Your task to perform on an android device: Install the Twitter app Image 0: 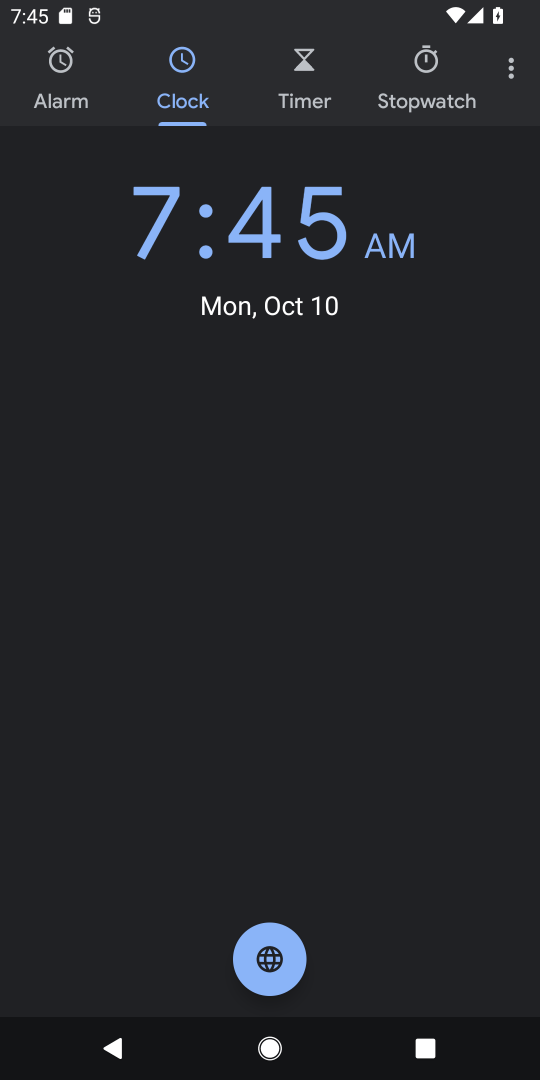
Step 0: press home button
Your task to perform on an android device: Install the Twitter app Image 1: 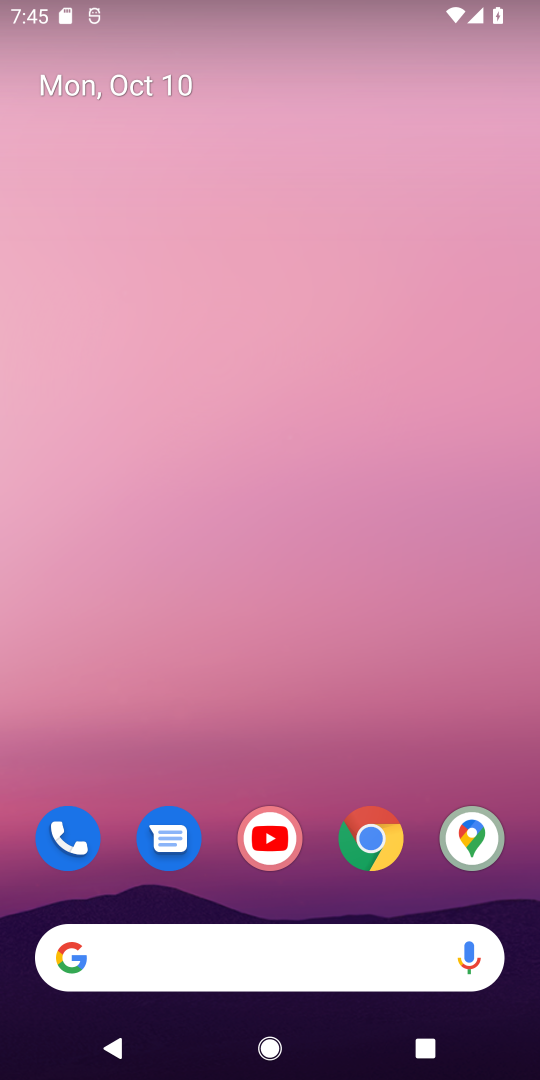
Step 1: drag from (325, 892) to (351, 135)
Your task to perform on an android device: Install the Twitter app Image 2: 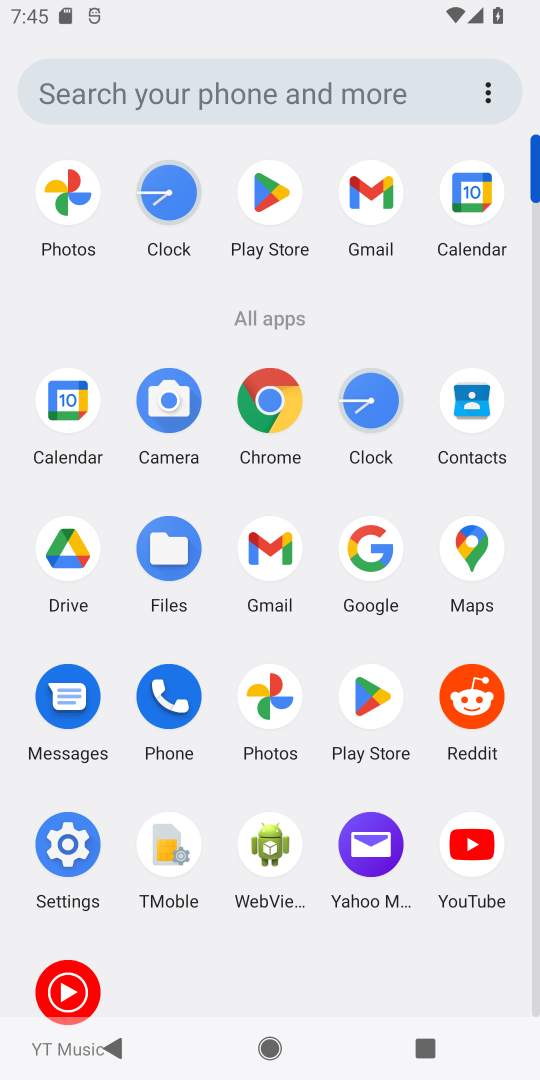
Step 2: click (270, 190)
Your task to perform on an android device: Install the Twitter app Image 3: 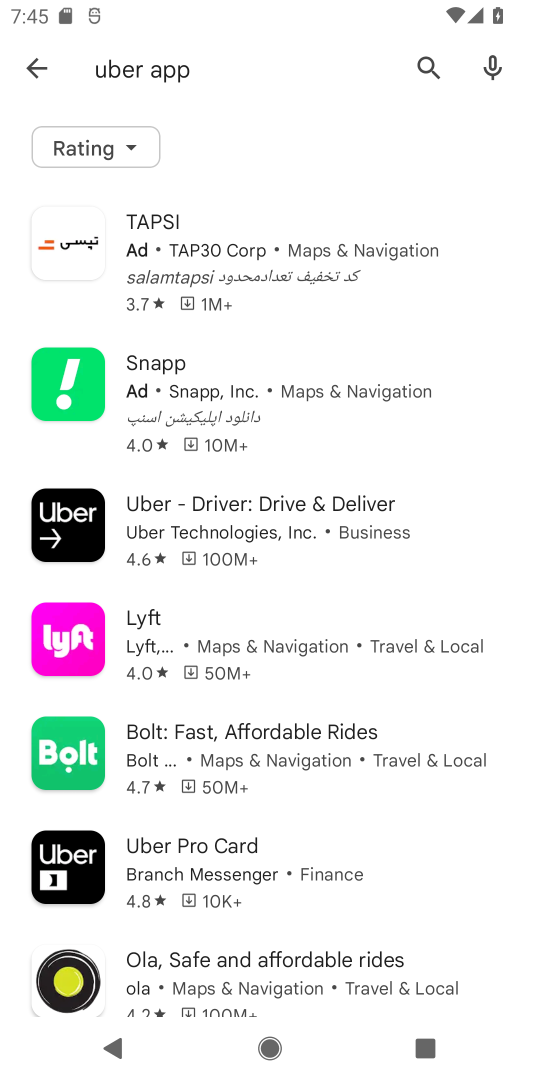
Step 3: click (421, 67)
Your task to perform on an android device: Install the Twitter app Image 4: 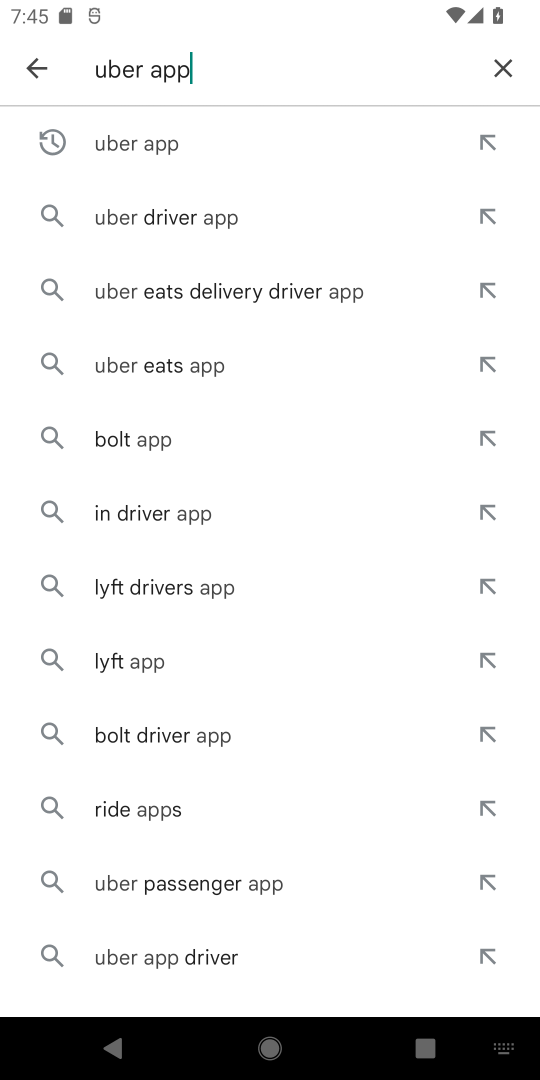
Step 4: click (497, 63)
Your task to perform on an android device: Install the Twitter app Image 5: 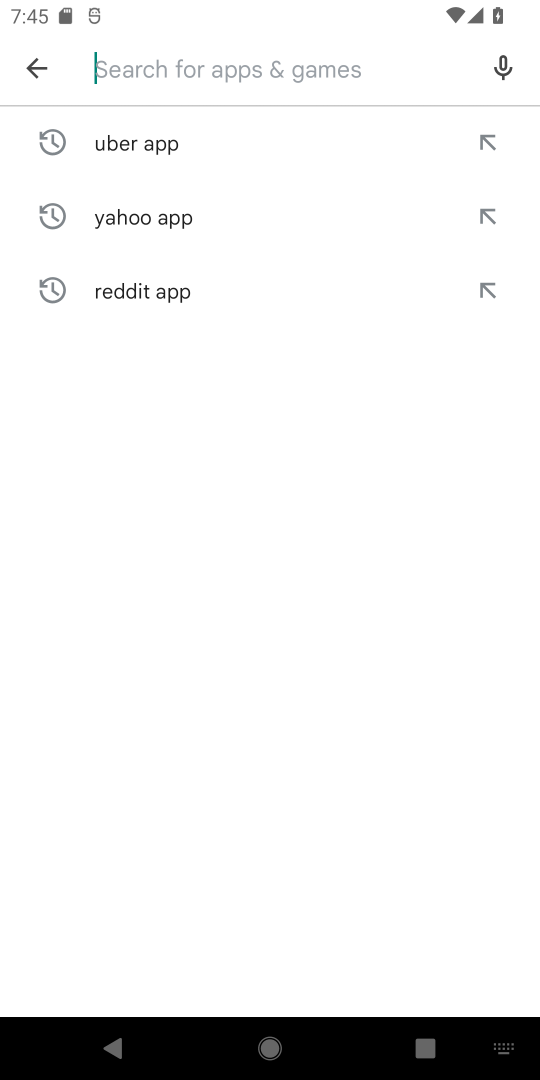
Step 5: type "twitter app"
Your task to perform on an android device: Install the Twitter app Image 6: 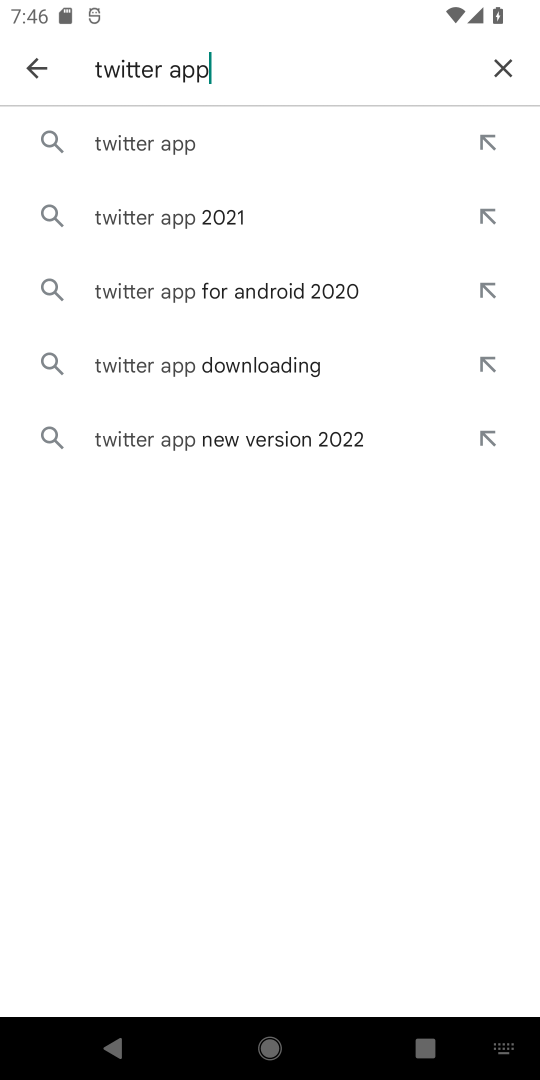
Step 6: click (157, 137)
Your task to perform on an android device: Install the Twitter app Image 7: 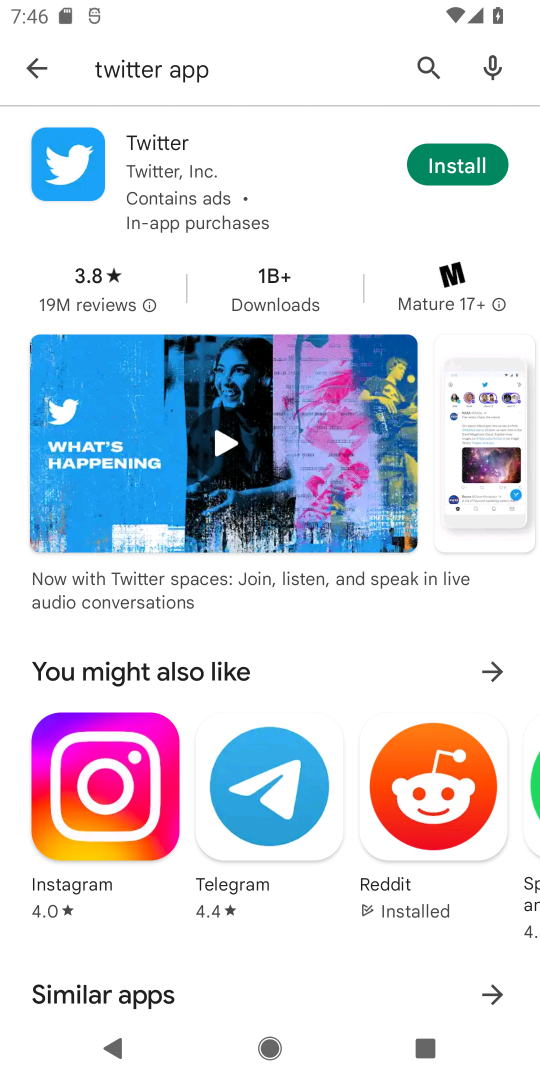
Step 7: click (442, 162)
Your task to perform on an android device: Install the Twitter app Image 8: 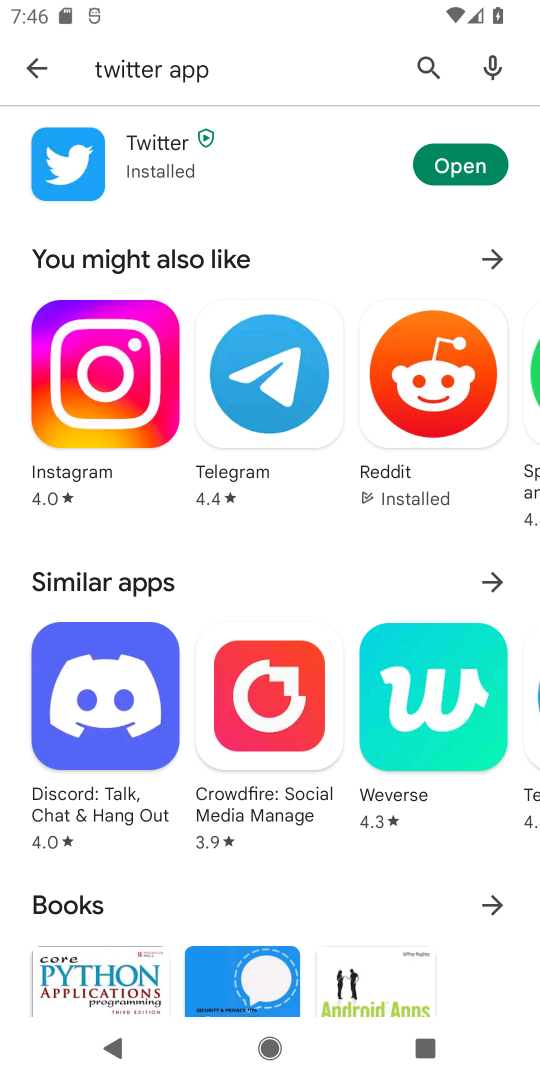
Step 8: task complete